Your task to perform on an android device: Open the stopwatch Image 0: 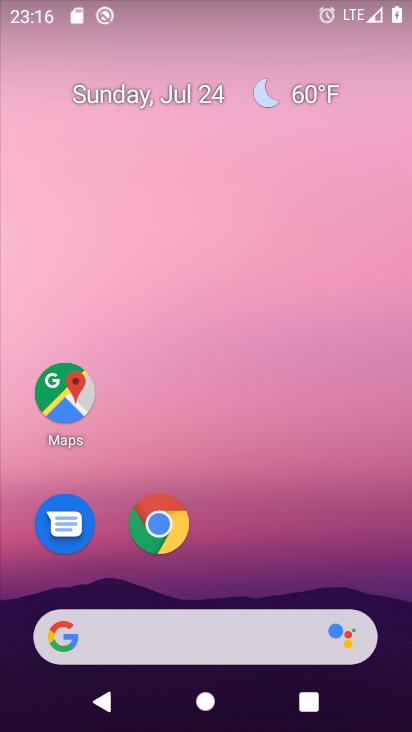
Step 0: drag from (262, 514) to (284, 6)
Your task to perform on an android device: Open the stopwatch Image 1: 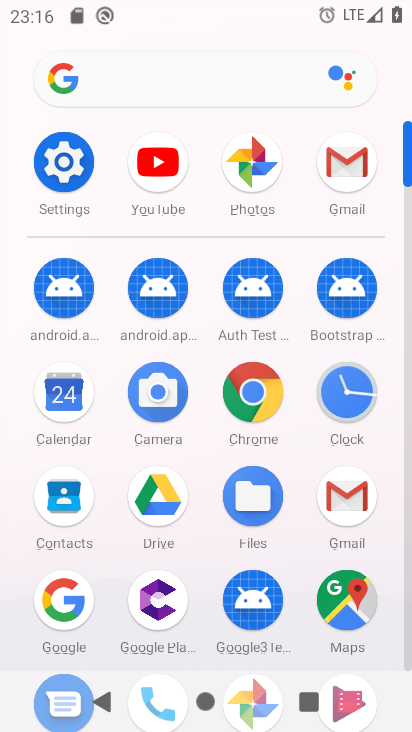
Step 1: click (342, 388)
Your task to perform on an android device: Open the stopwatch Image 2: 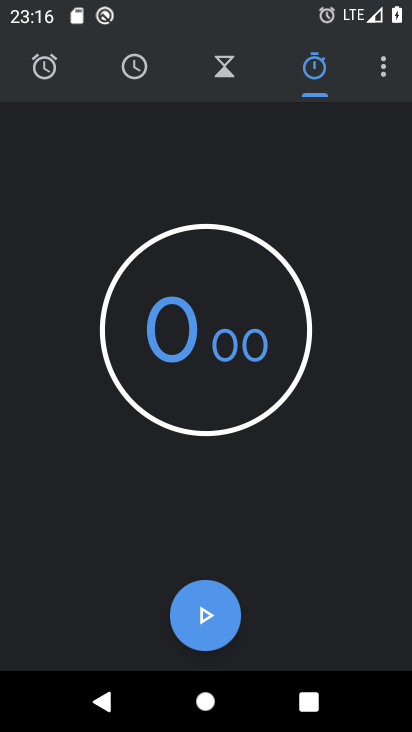
Step 2: task complete